Your task to perform on an android device: View the shopping cart on ebay.com. Image 0: 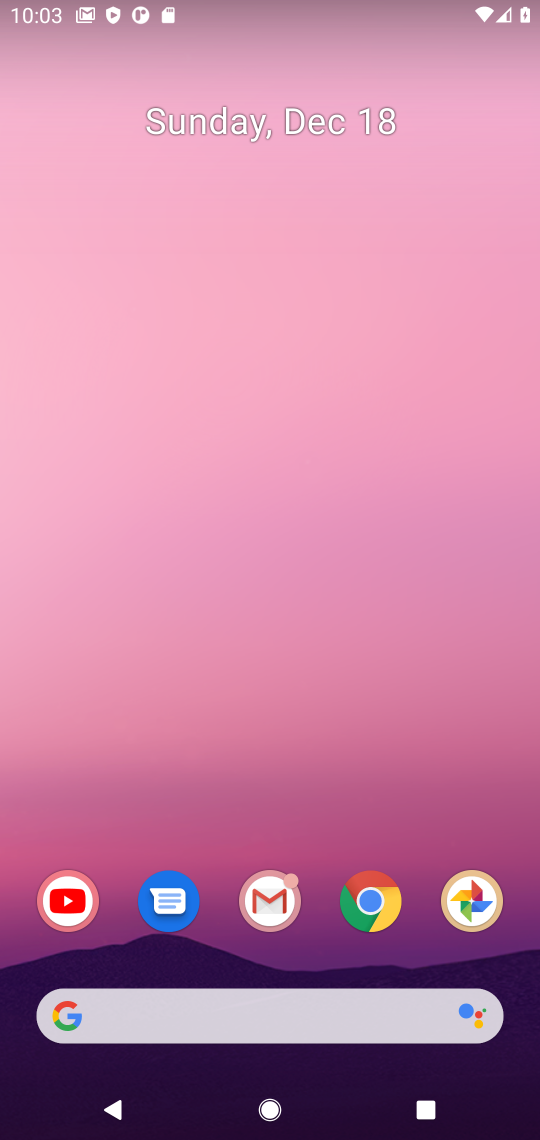
Step 0: click (368, 929)
Your task to perform on an android device: View the shopping cart on ebay.com. Image 1: 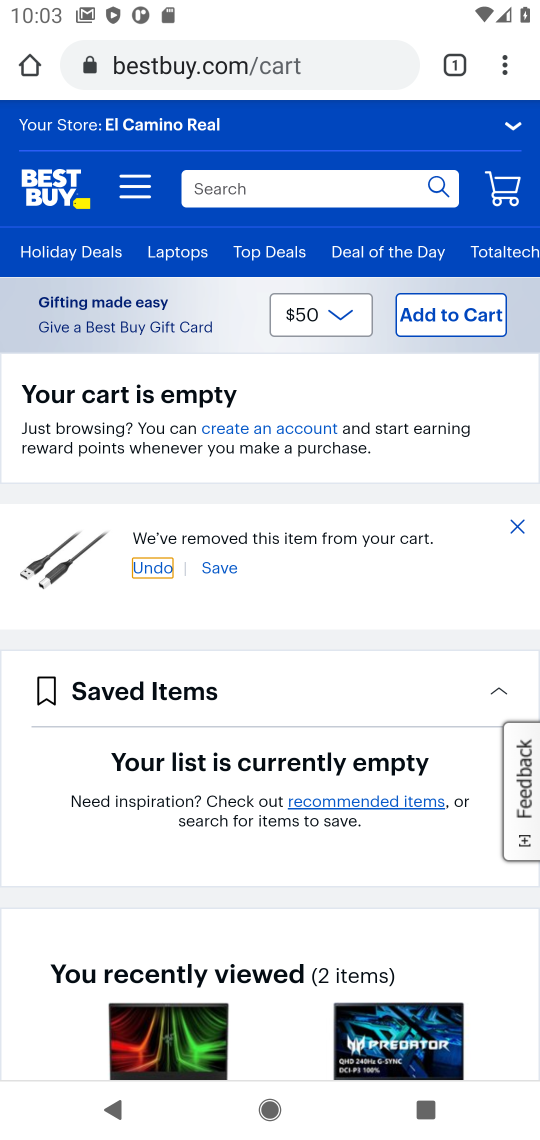
Step 1: task complete